Your task to perform on an android device: turn on sleep mode Image 0: 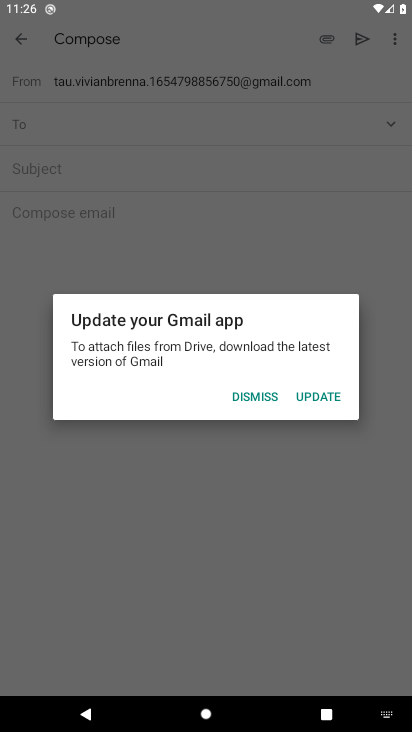
Step 0: press home button
Your task to perform on an android device: turn on sleep mode Image 1: 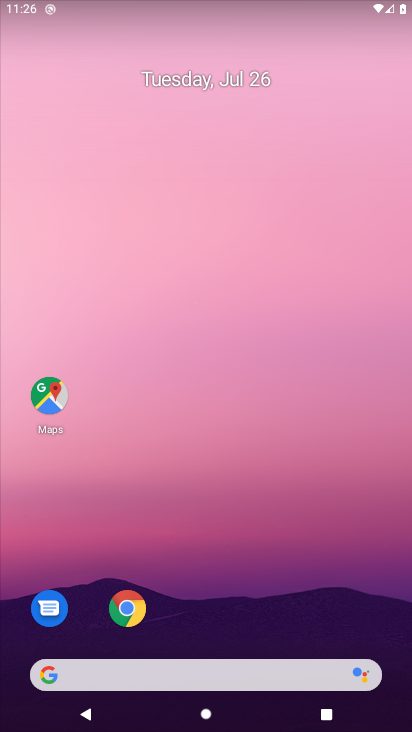
Step 1: drag from (247, 469) to (224, 218)
Your task to perform on an android device: turn on sleep mode Image 2: 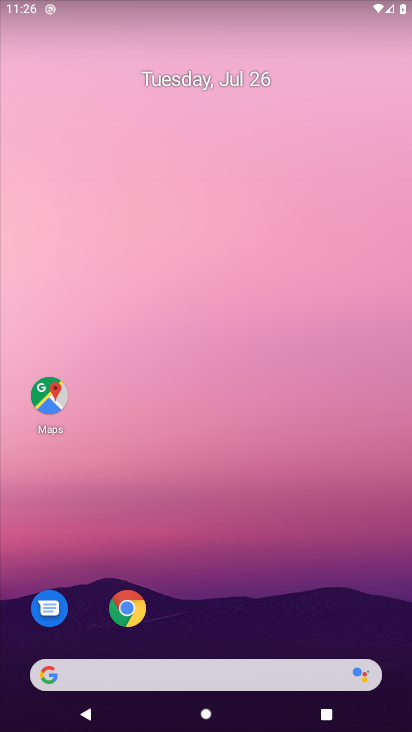
Step 2: drag from (285, 583) to (223, 163)
Your task to perform on an android device: turn on sleep mode Image 3: 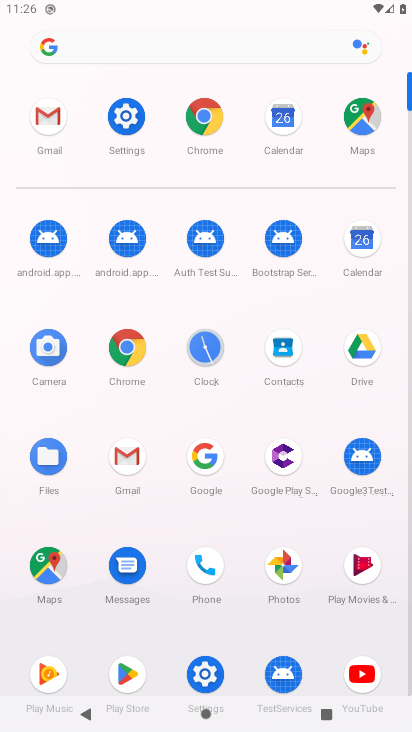
Step 3: click (124, 116)
Your task to perform on an android device: turn on sleep mode Image 4: 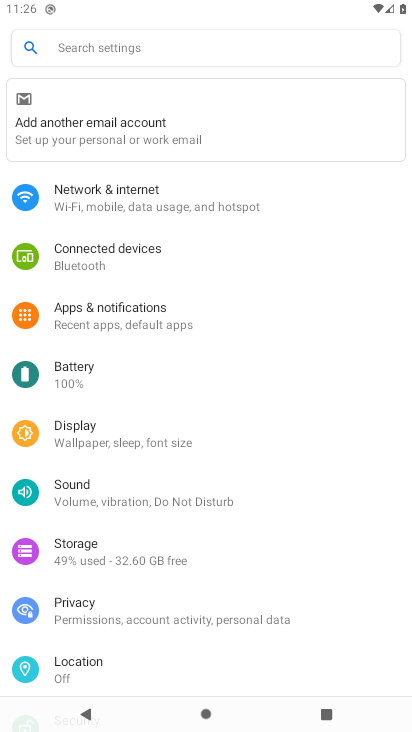
Step 4: click (107, 430)
Your task to perform on an android device: turn on sleep mode Image 5: 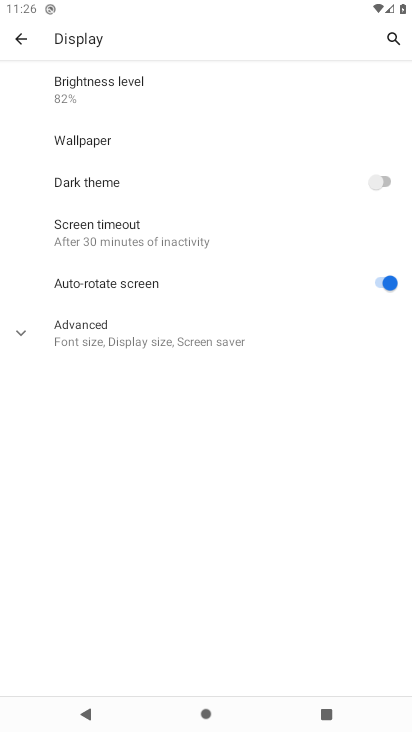
Step 5: click (28, 334)
Your task to perform on an android device: turn on sleep mode Image 6: 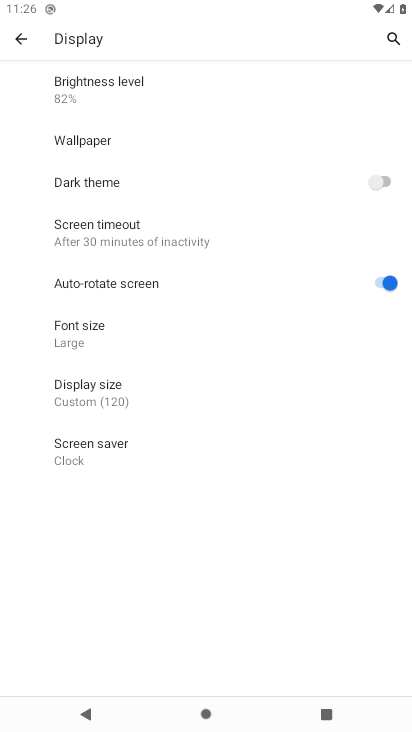
Step 6: task complete